Your task to perform on an android device: Show me recent news Image 0: 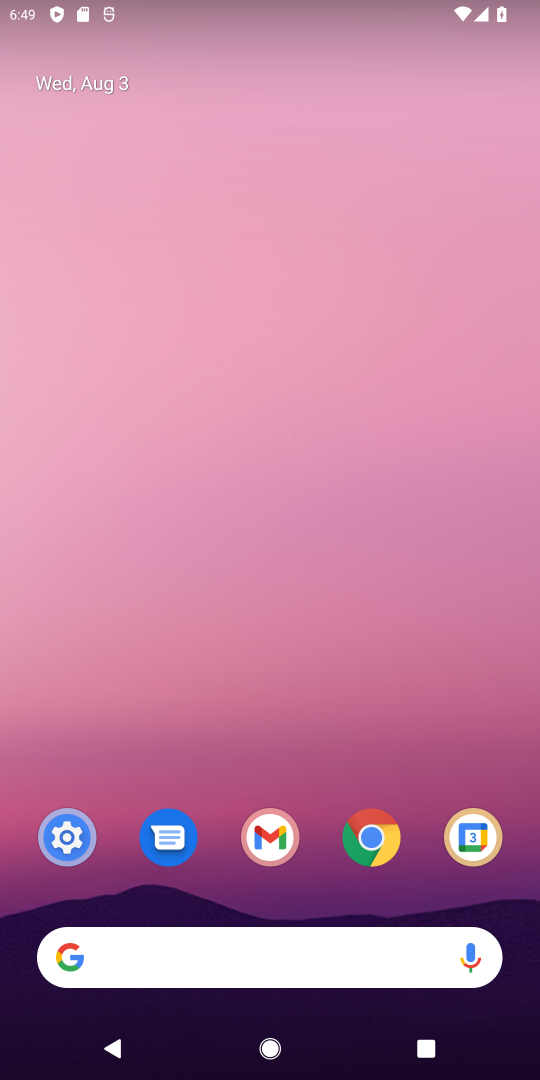
Step 0: press home button
Your task to perform on an android device: Show me recent news Image 1: 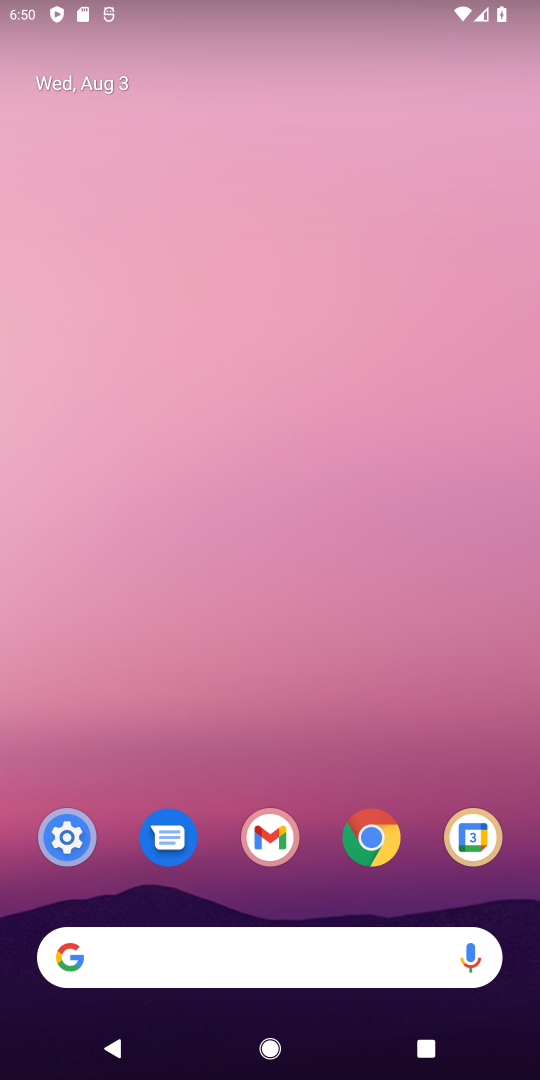
Step 1: press home button
Your task to perform on an android device: Show me recent news Image 2: 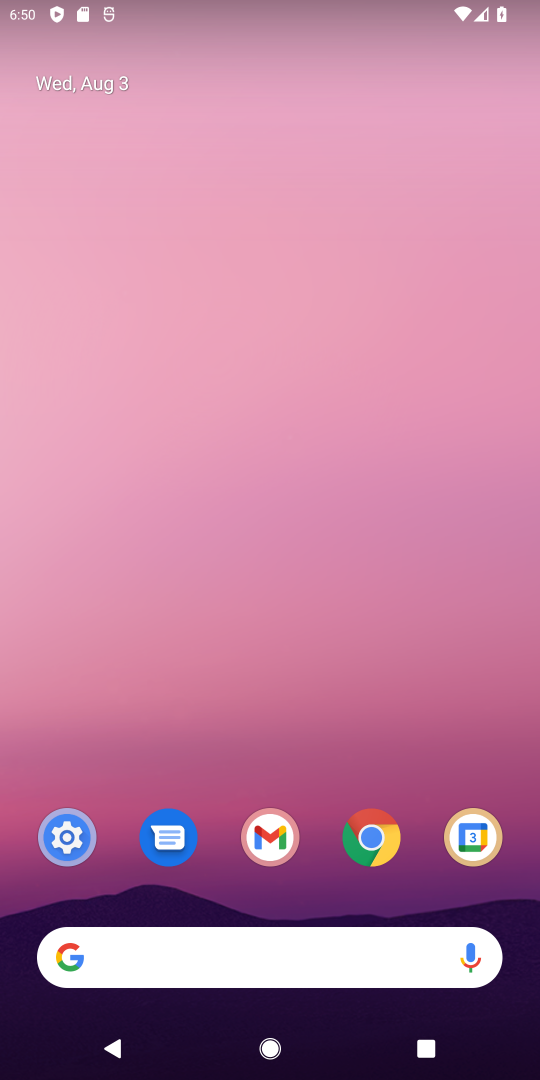
Step 2: click (63, 962)
Your task to perform on an android device: Show me recent news Image 3: 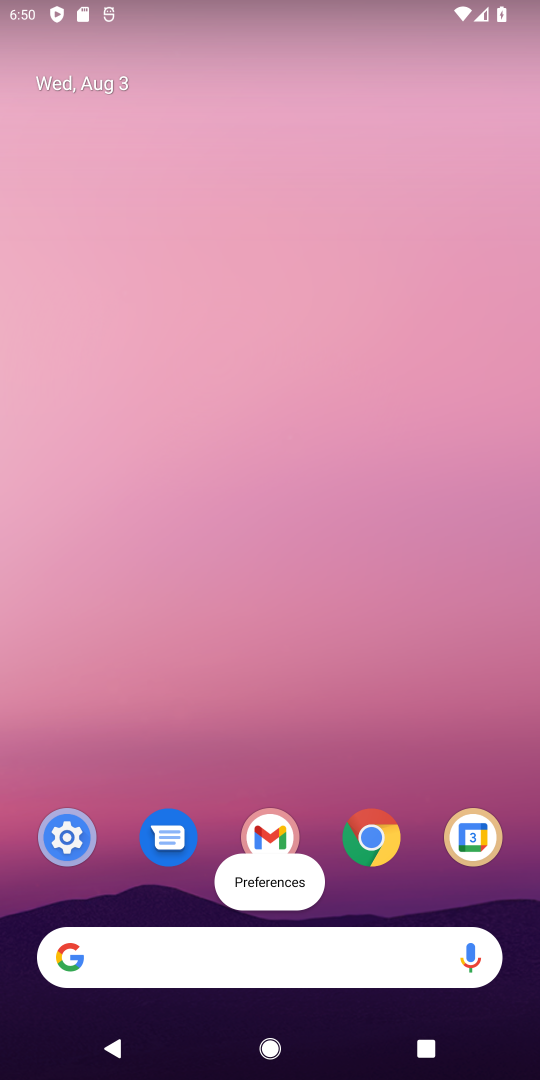
Step 3: click (74, 954)
Your task to perform on an android device: Show me recent news Image 4: 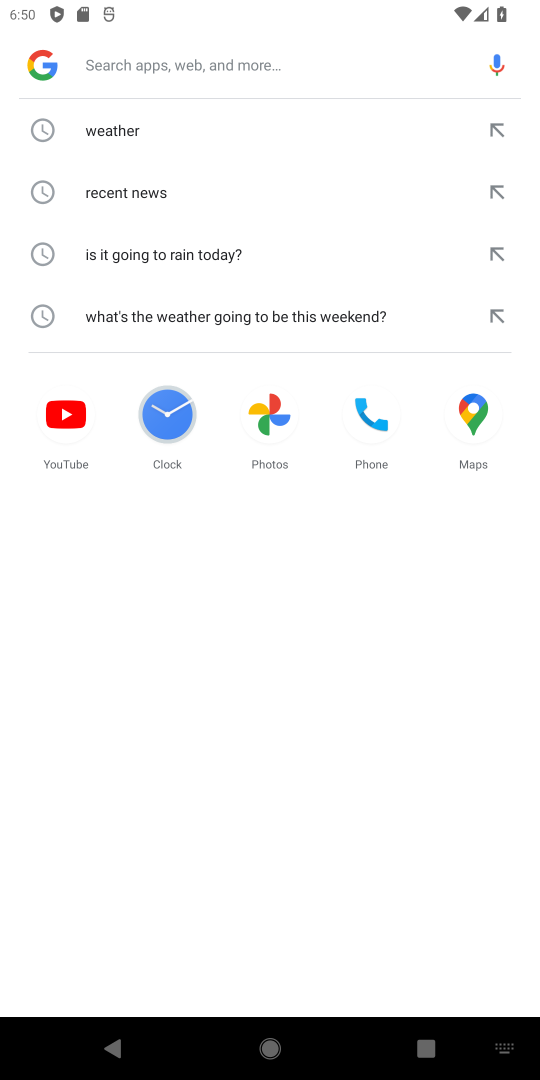
Step 4: click (166, 195)
Your task to perform on an android device: Show me recent news Image 5: 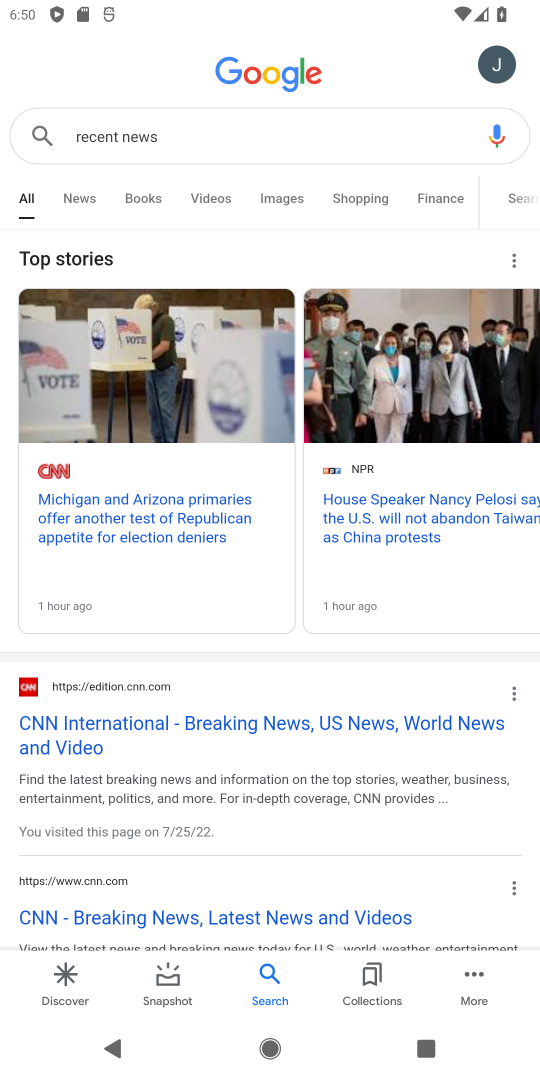
Step 5: task complete